Your task to perform on an android device: Open wifi settings Image 0: 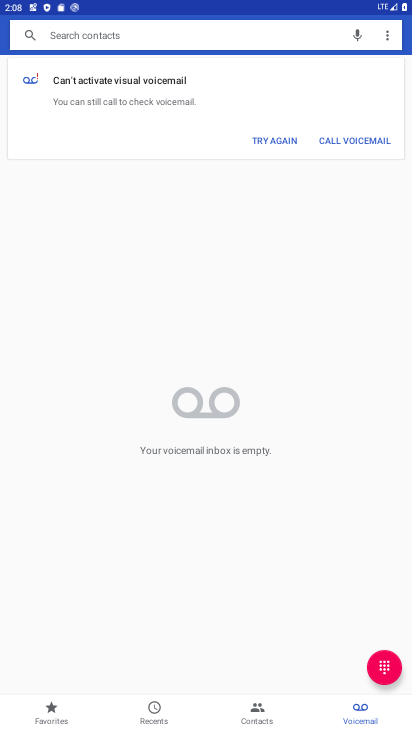
Step 0: press home button
Your task to perform on an android device: Open wifi settings Image 1: 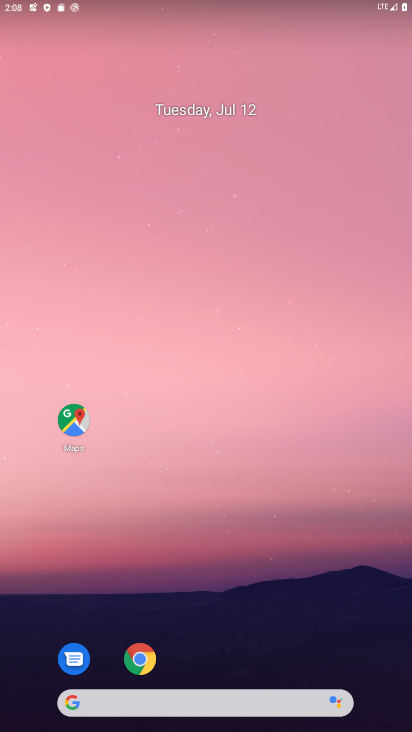
Step 1: drag from (220, 695) to (191, 95)
Your task to perform on an android device: Open wifi settings Image 2: 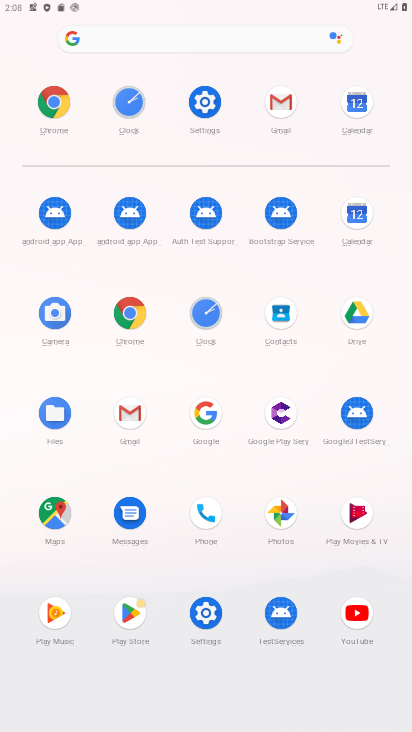
Step 2: click (207, 102)
Your task to perform on an android device: Open wifi settings Image 3: 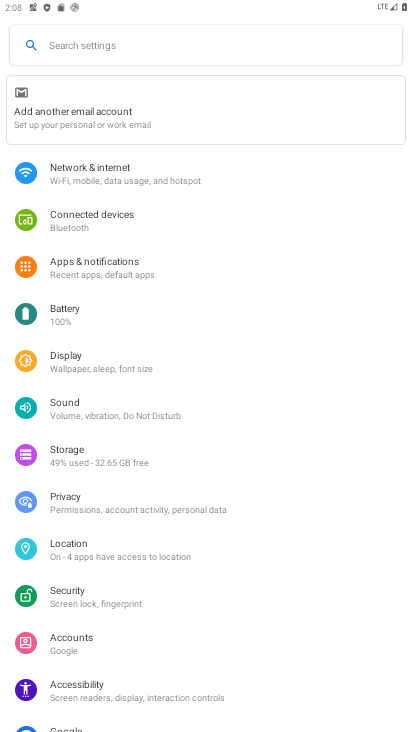
Step 3: click (88, 171)
Your task to perform on an android device: Open wifi settings Image 4: 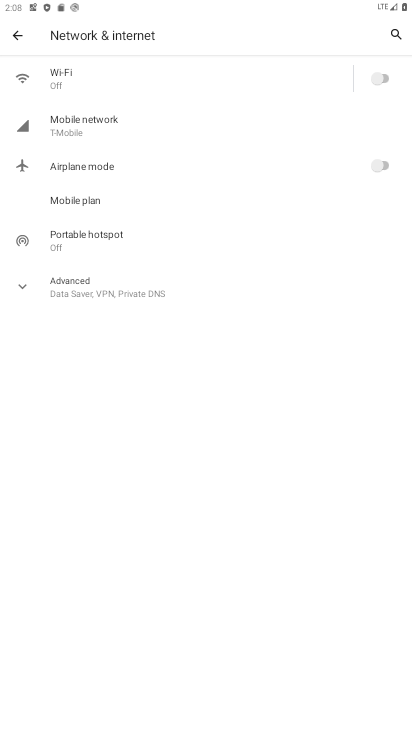
Step 4: click (66, 80)
Your task to perform on an android device: Open wifi settings Image 5: 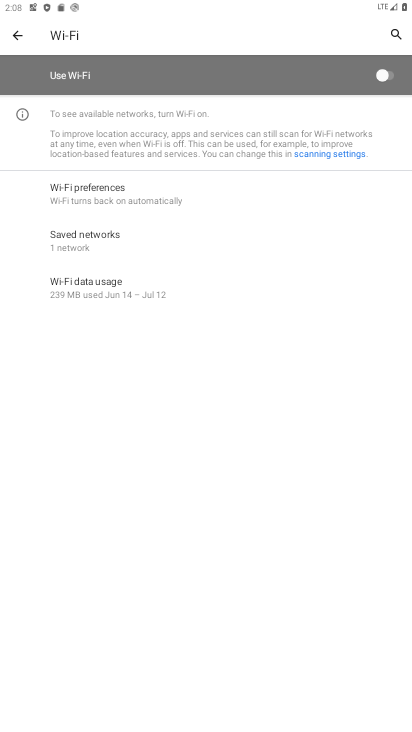
Step 5: task complete